Your task to perform on an android device: Open Google Chrome and click the shortcut for Amazon.com Image 0: 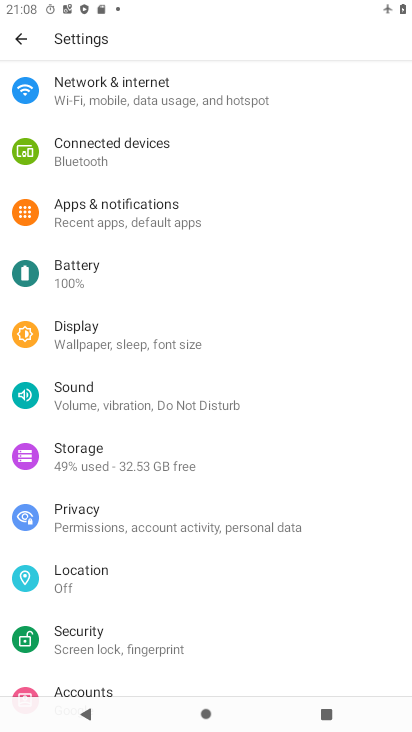
Step 0: press home button
Your task to perform on an android device: Open Google Chrome and click the shortcut for Amazon.com Image 1: 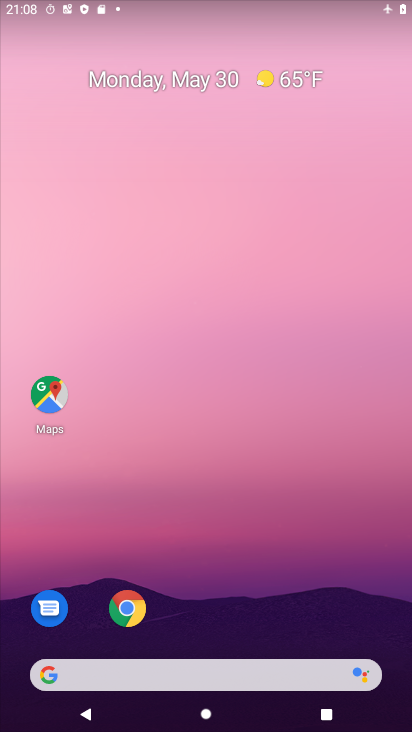
Step 1: click (139, 603)
Your task to perform on an android device: Open Google Chrome and click the shortcut for Amazon.com Image 2: 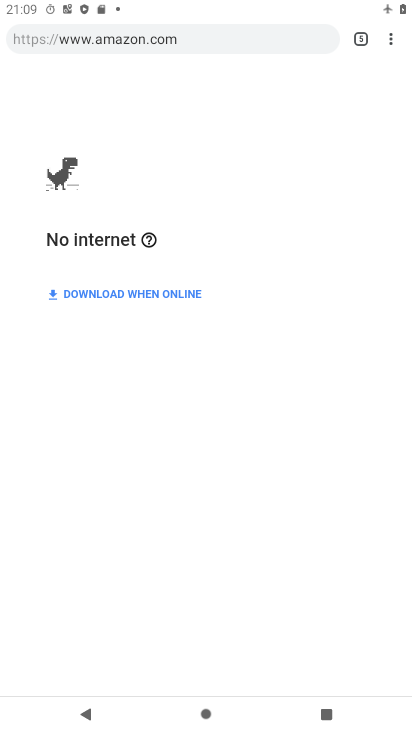
Step 2: task complete